Your task to perform on an android device: uninstall "PlayWell" Image 0: 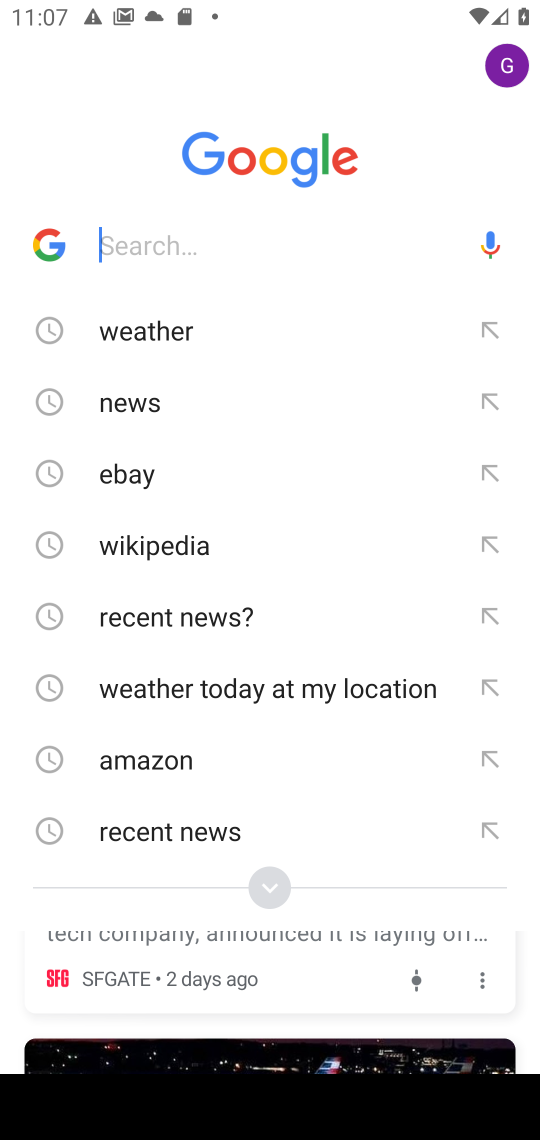
Step 0: press home button
Your task to perform on an android device: uninstall "PlayWell" Image 1: 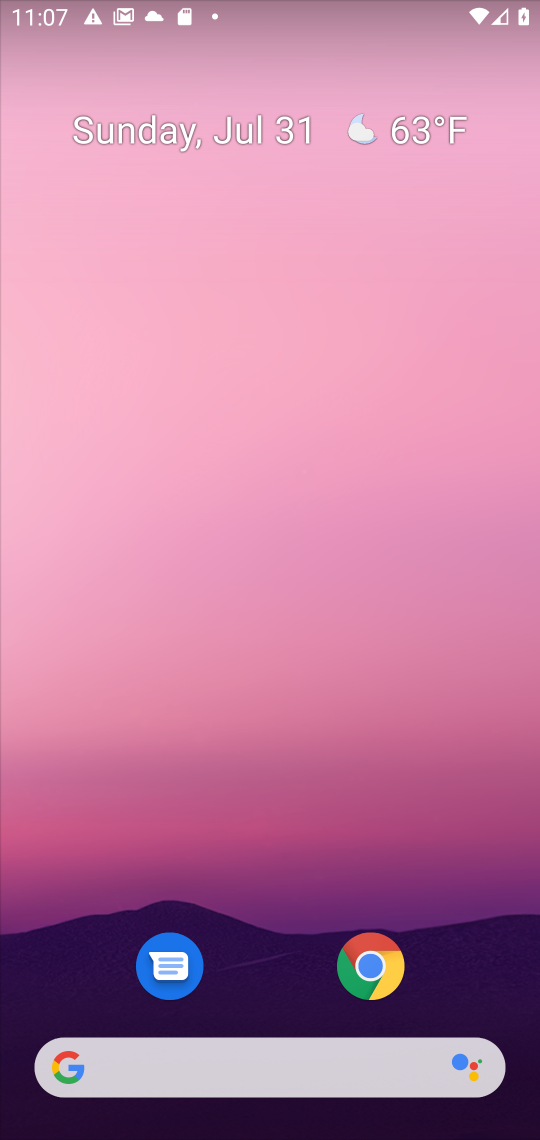
Step 1: drag from (254, 956) to (67, 8)
Your task to perform on an android device: uninstall "PlayWell" Image 2: 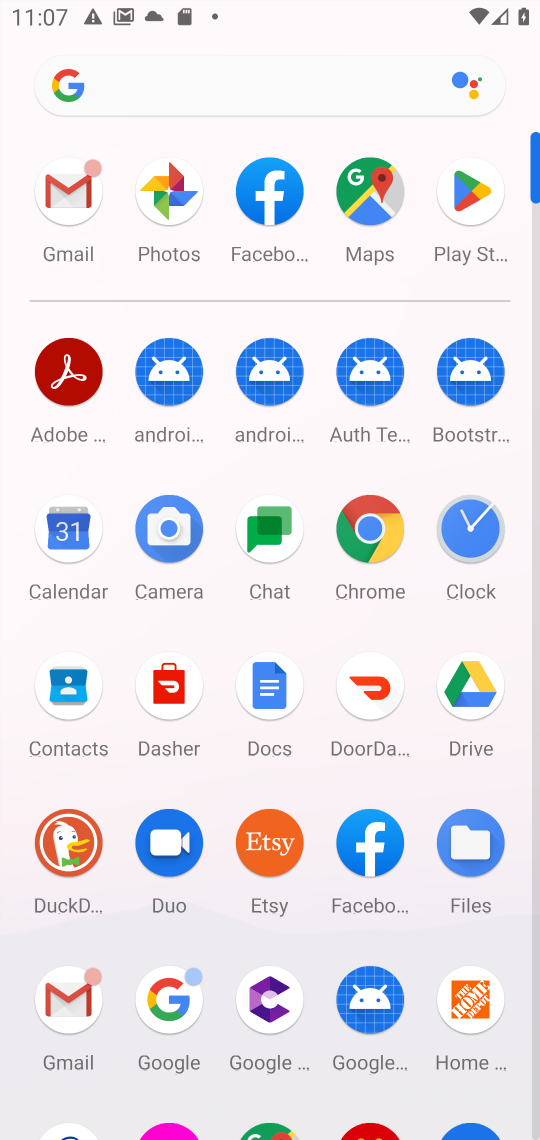
Step 2: click (472, 219)
Your task to perform on an android device: uninstall "PlayWell" Image 3: 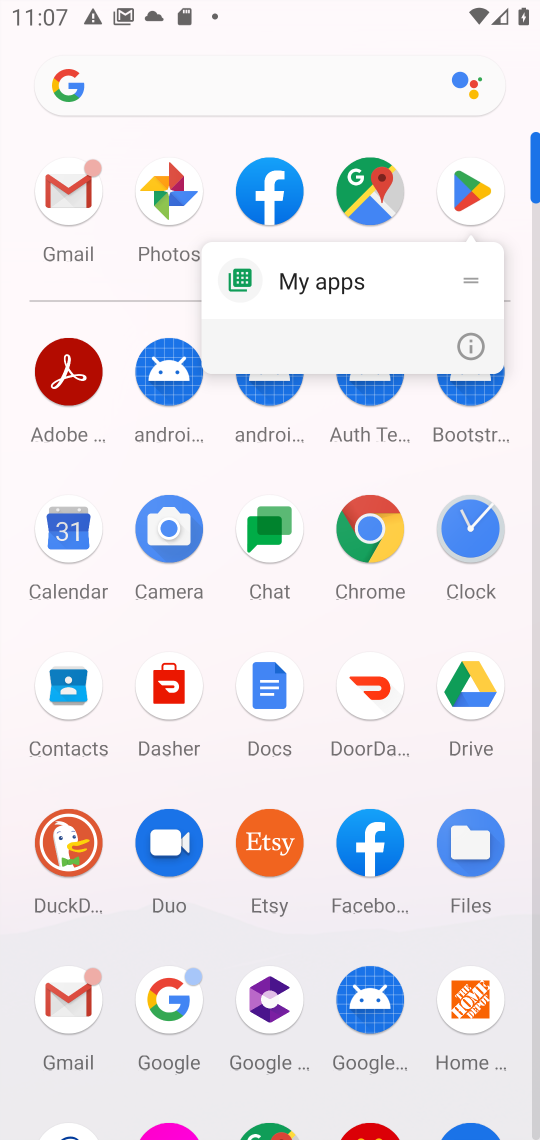
Step 3: click (472, 189)
Your task to perform on an android device: uninstall "PlayWell" Image 4: 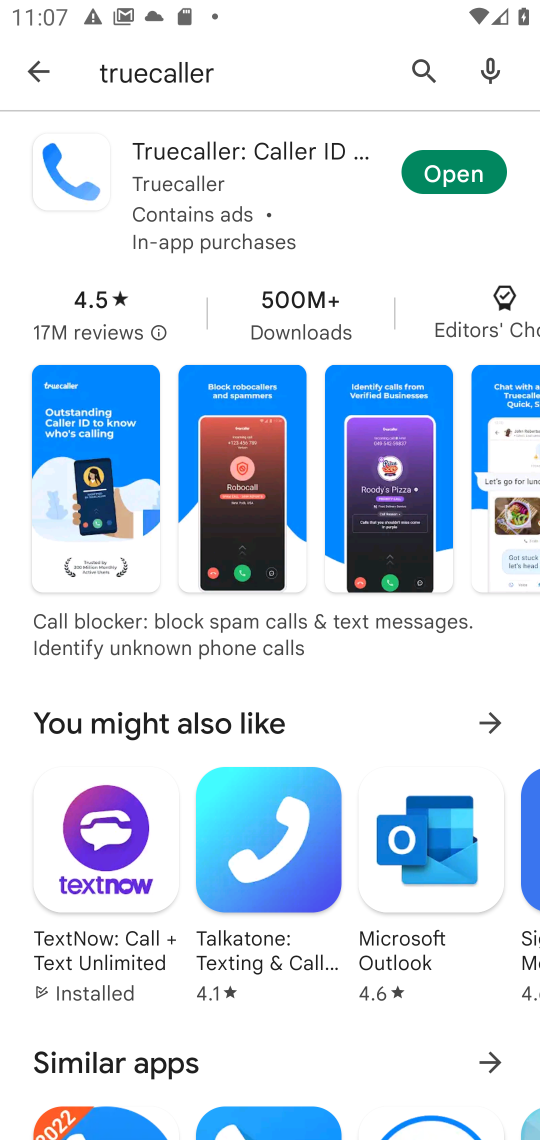
Step 4: click (252, 115)
Your task to perform on an android device: uninstall "PlayWell" Image 5: 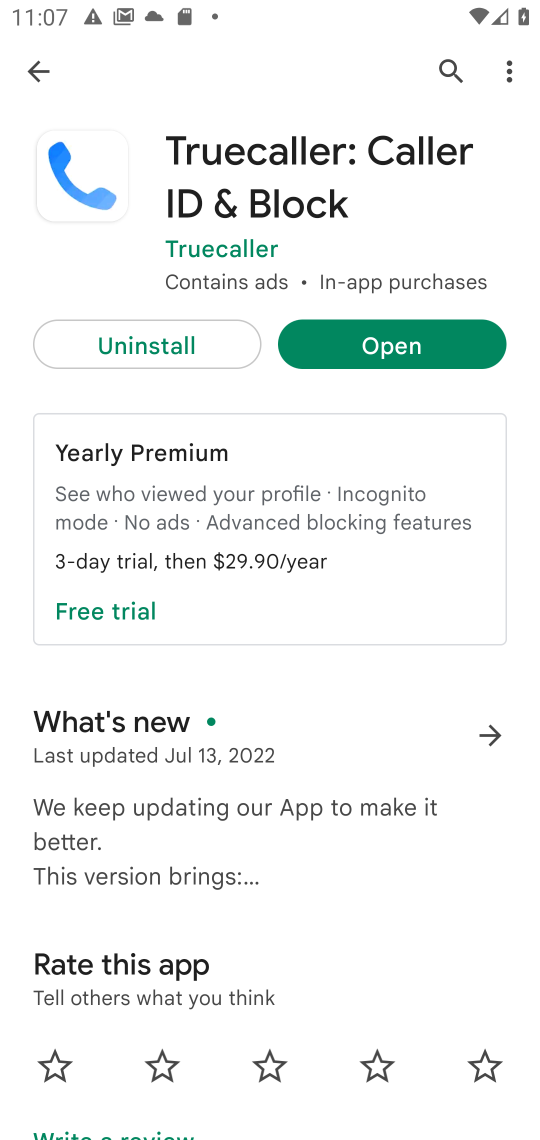
Step 5: click (32, 69)
Your task to perform on an android device: uninstall "PlayWell" Image 6: 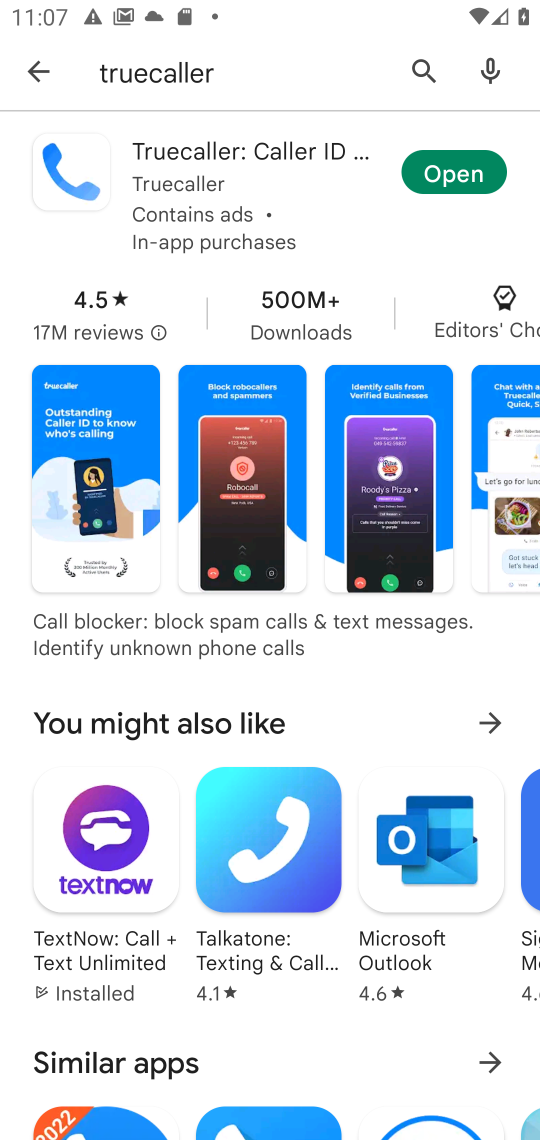
Step 6: click (173, 71)
Your task to perform on an android device: uninstall "PlayWell" Image 7: 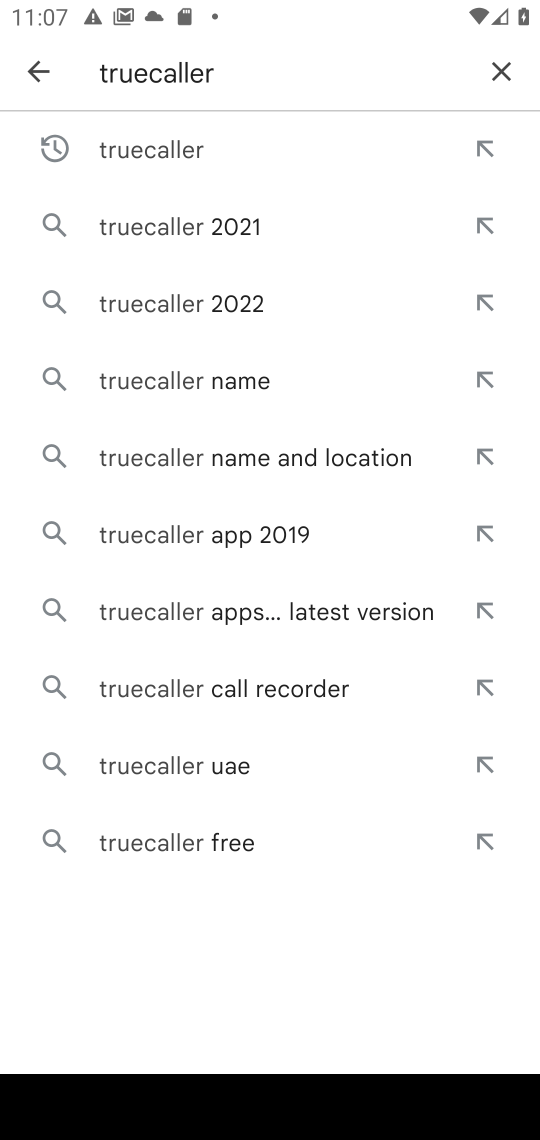
Step 7: click (492, 66)
Your task to perform on an android device: uninstall "PlayWell" Image 8: 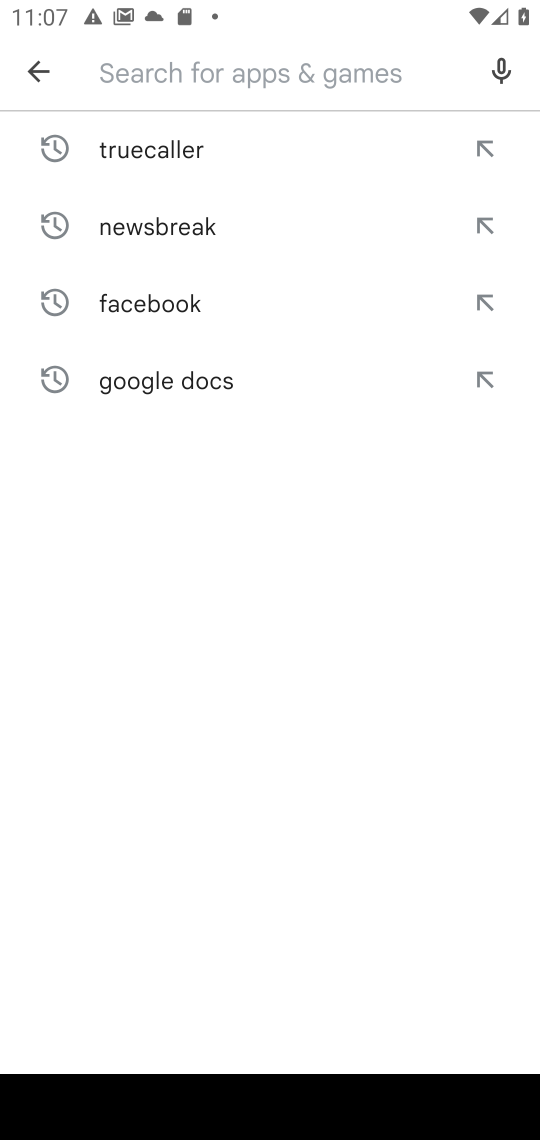
Step 8: type "playwell"
Your task to perform on an android device: uninstall "PlayWell" Image 9: 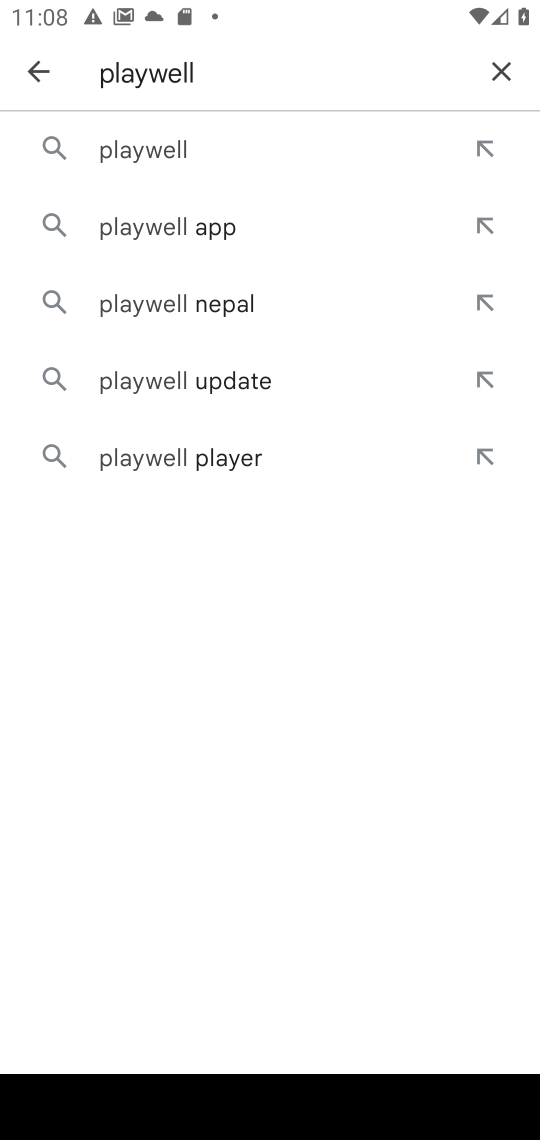
Step 9: click (167, 167)
Your task to perform on an android device: uninstall "PlayWell" Image 10: 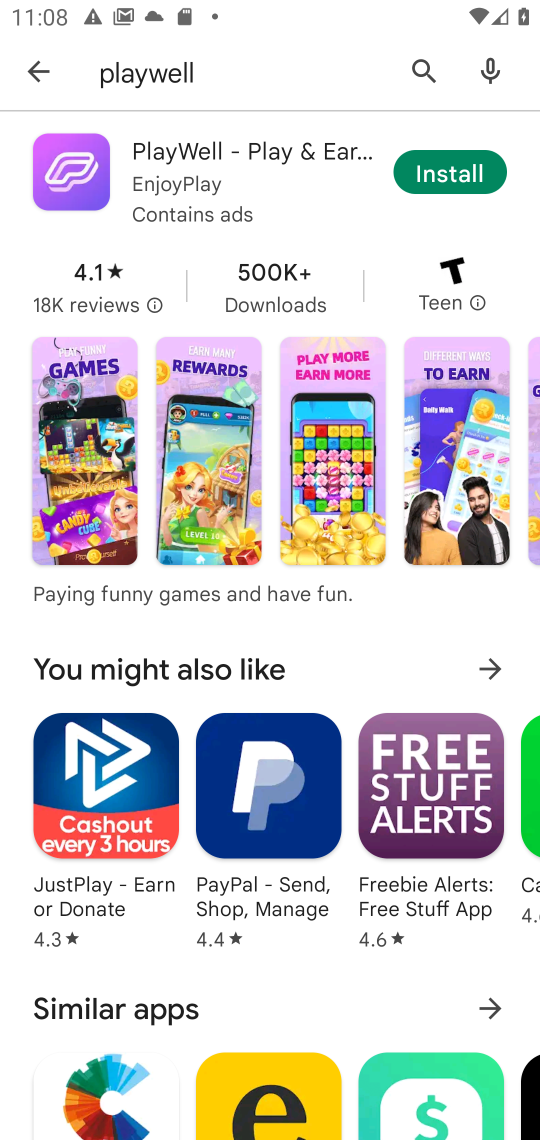
Step 10: click (79, 168)
Your task to perform on an android device: uninstall "PlayWell" Image 11: 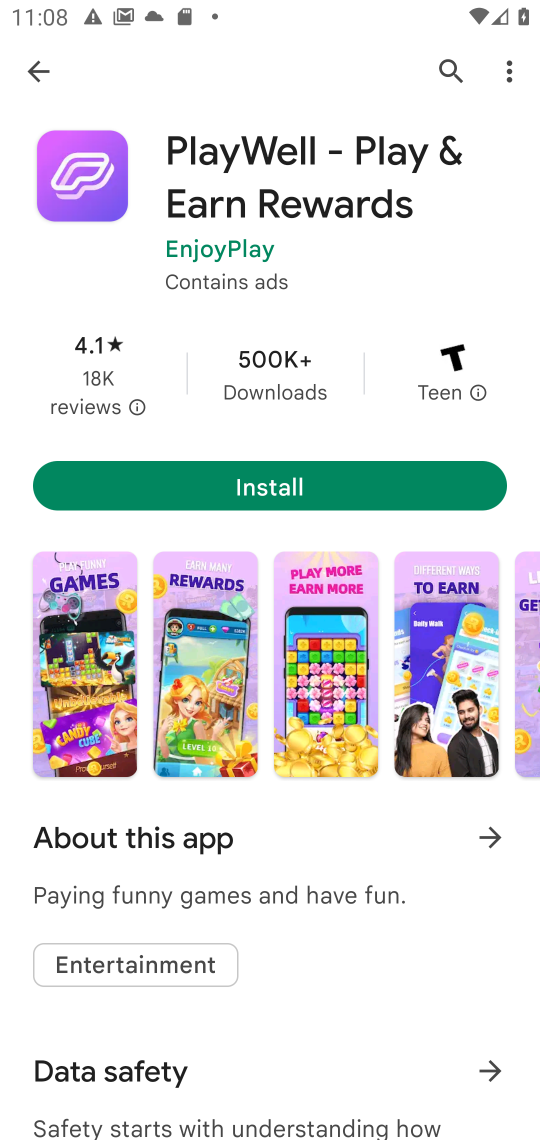
Step 11: task complete